Your task to perform on an android device: Search for hotels in Seattle Image 0: 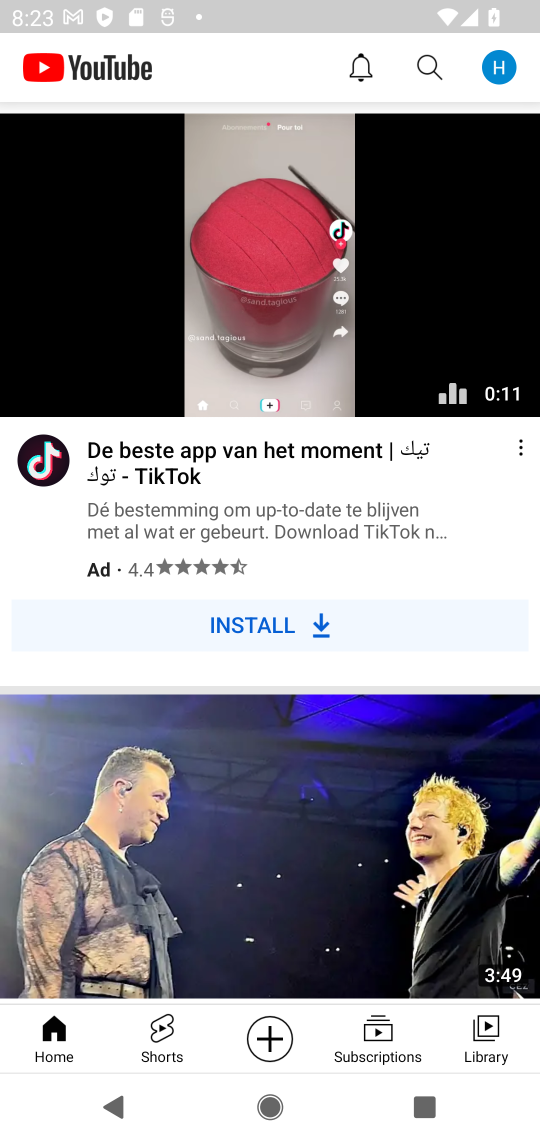
Step 0: press home button
Your task to perform on an android device: Search for hotels in Seattle Image 1: 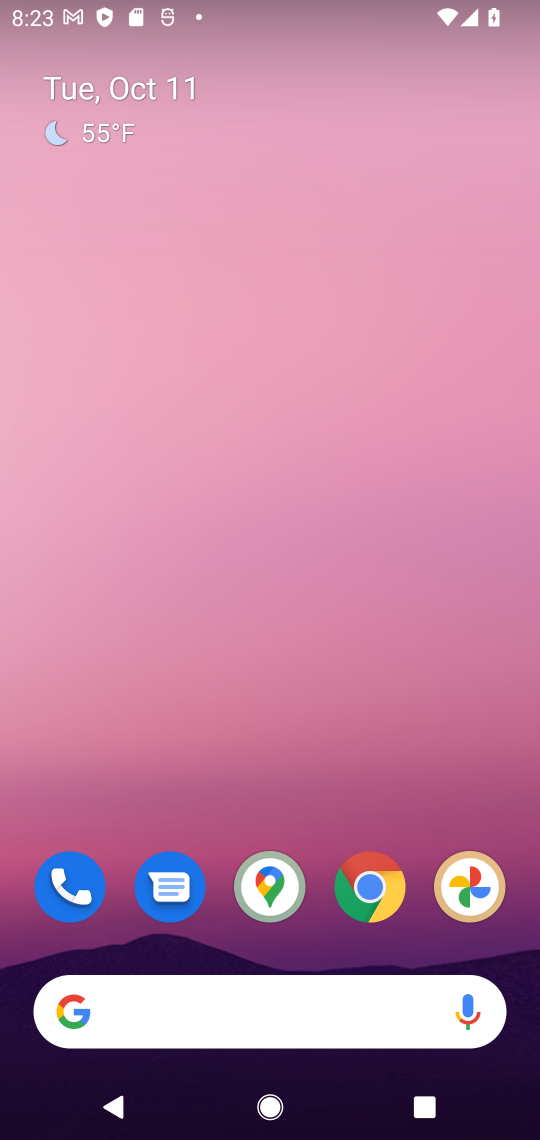
Step 1: click (389, 911)
Your task to perform on an android device: Search for hotels in Seattle Image 2: 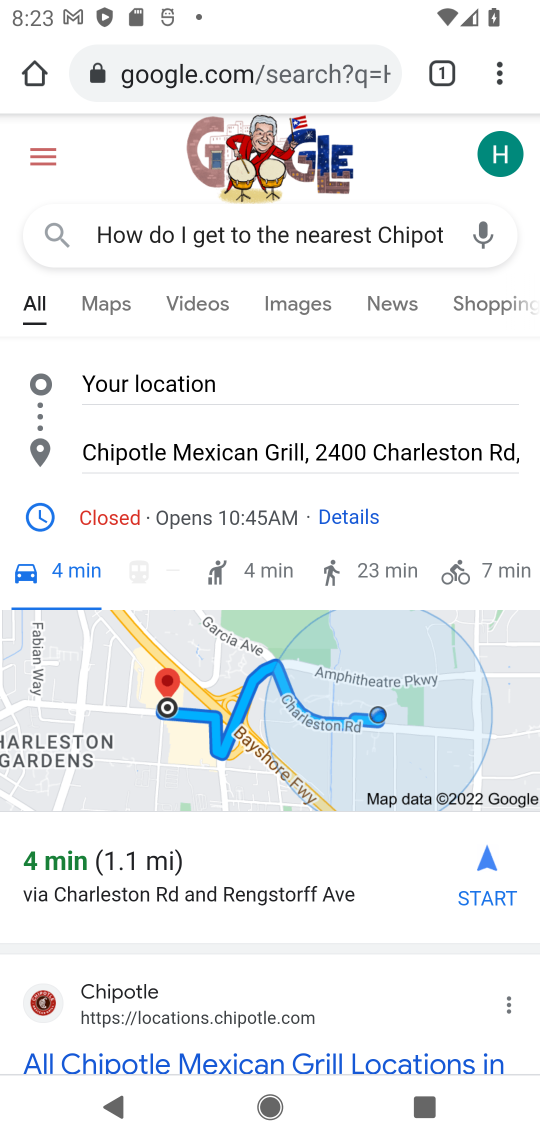
Step 2: click (272, 82)
Your task to perform on an android device: Search for hotels in Seattle Image 3: 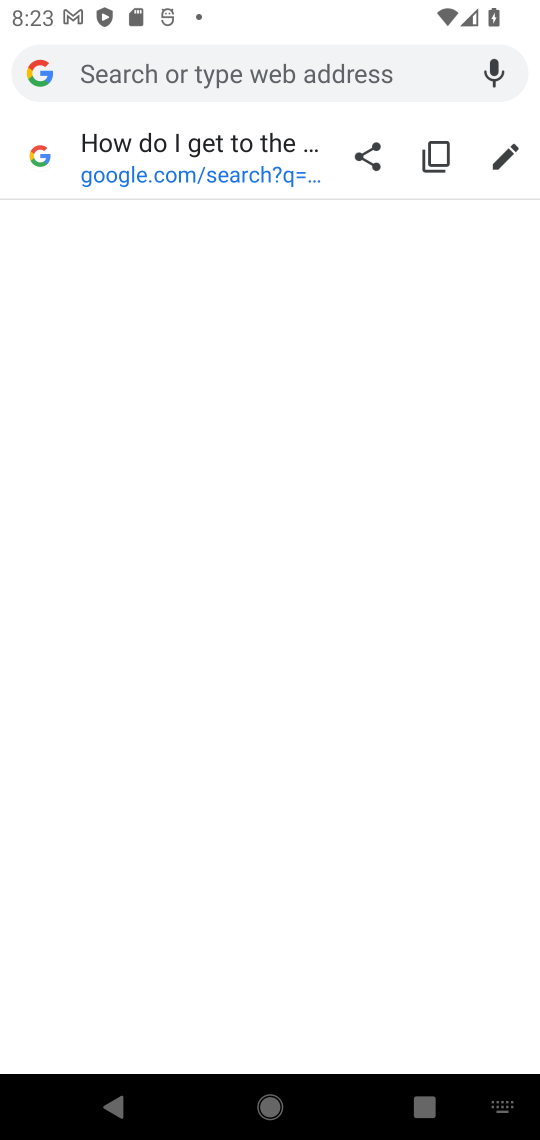
Step 3: type "hotels in Seattle"
Your task to perform on an android device: Search for hotels in Seattle Image 4: 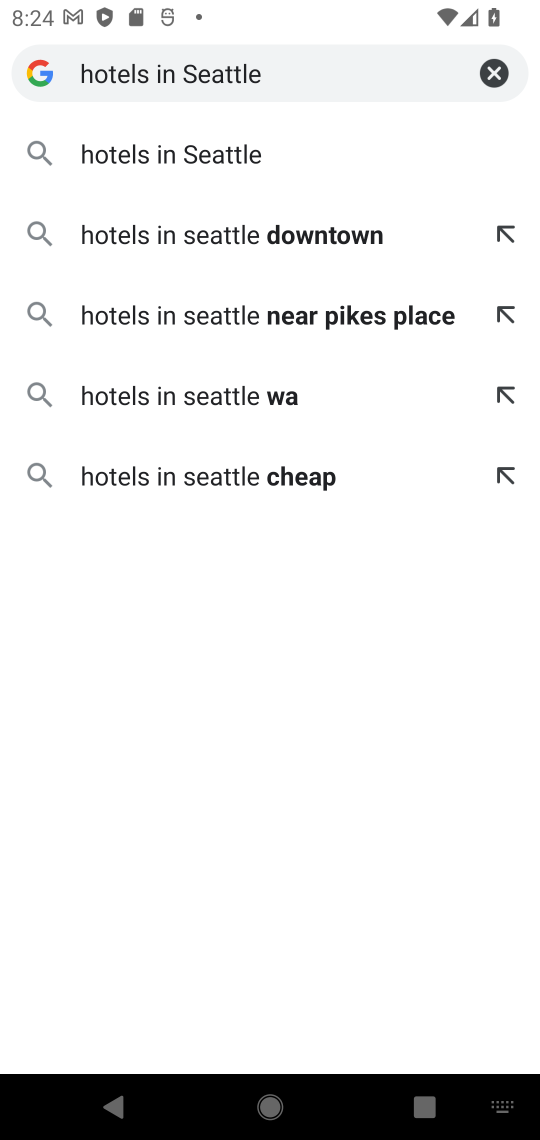
Step 4: click (388, 138)
Your task to perform on an android device: Search for hotels in Seattle Image 5: 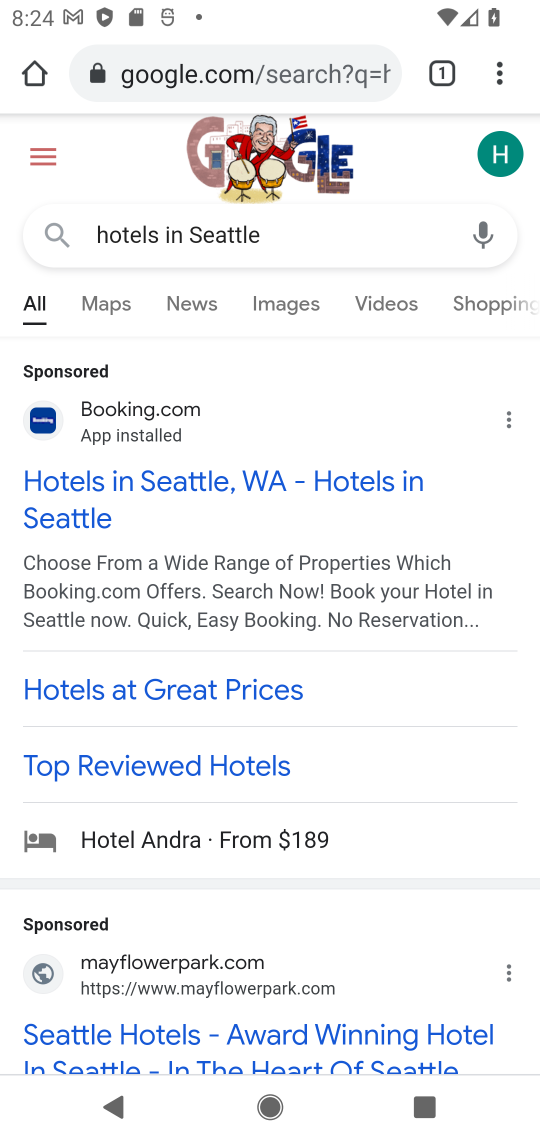
Step 5: task complete